Your task to perform on an android device: stop showing notifications on the lock screen Image 0: 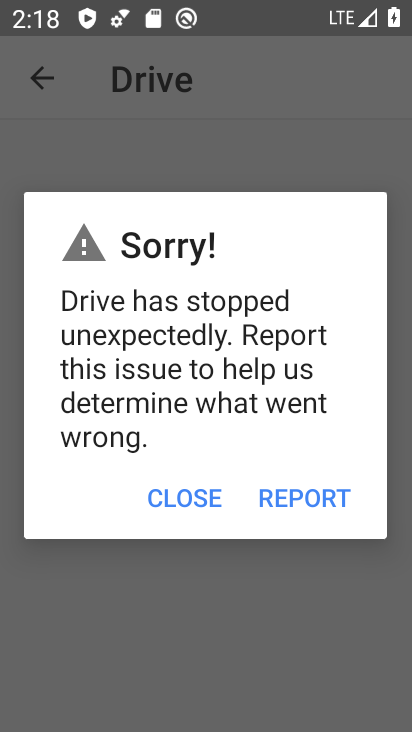
Step 0: press home button
Your task to perform on an android device: stop showing notifications on the lock screen Image 1: 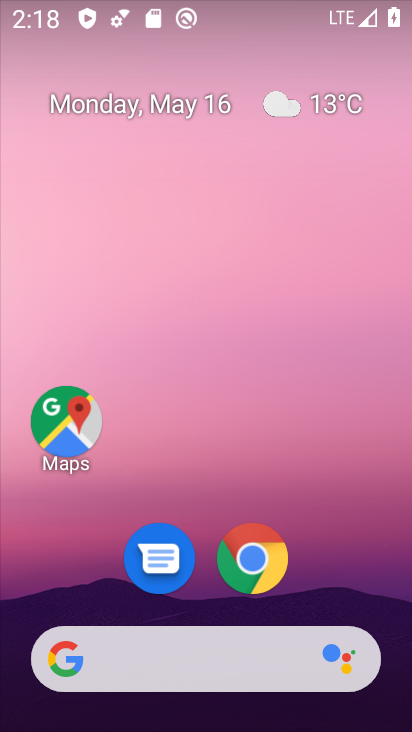
Step 1: drag from (206, 620) to (175, 92)
Your task to perform on an android device: stop showing notifications on the lock screen Image 2: 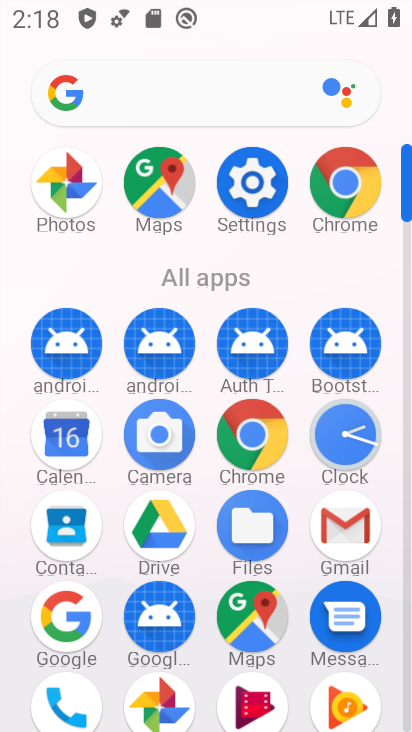
Step 2: click (254, 188)
Your task to perform on an android device: stop showing notifications on the lock screen Image 3: 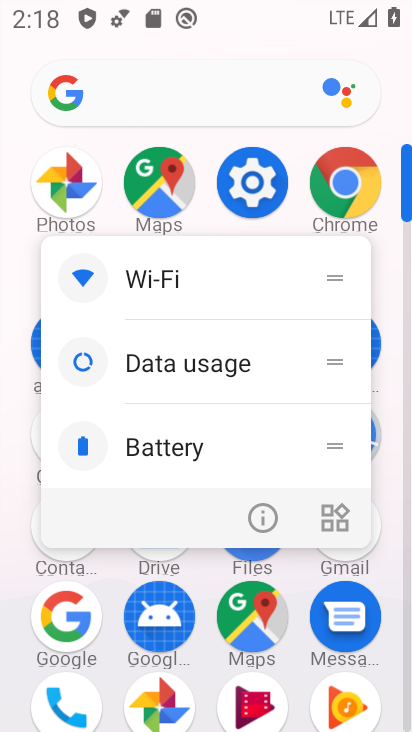
Step 3: click (250, 193)
Your task to perform on an android device: stop showing notifications on the lock screen Image 4: 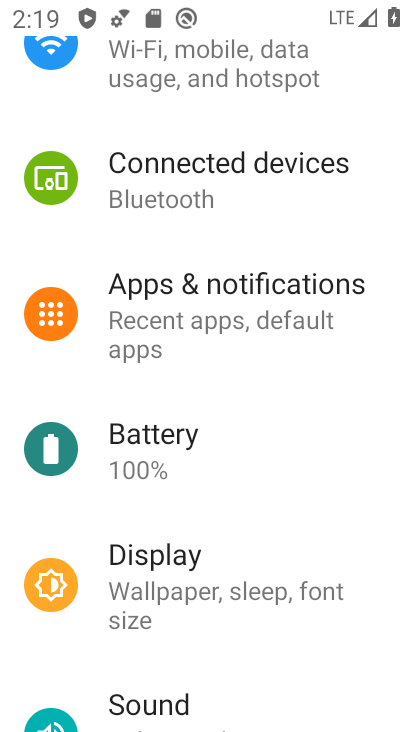
Step 4: drag from (206, 583) to (200, 499)
Your task to perform on an android device: stop showing notifications on the lock screen Image 5: 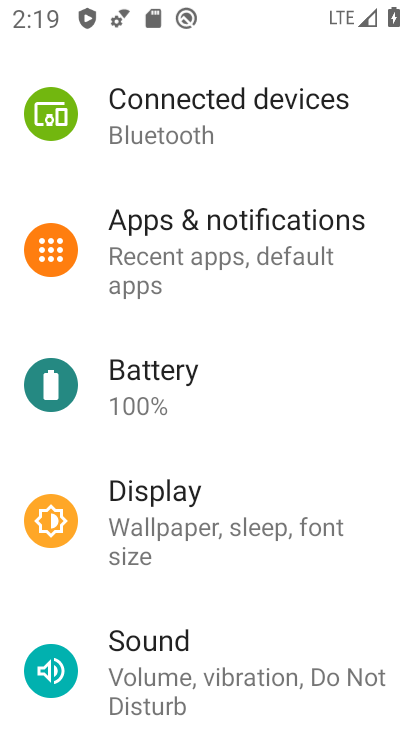
Step 5: click (167, 275)
Your task to perform on an android device: stop showing notifications on the lock screen Image 6: 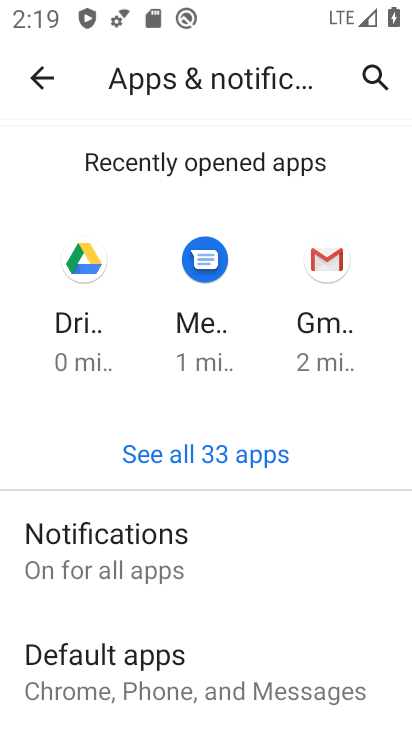
Step 6: click (122, 555)
Your task to perform on an android device: stop showing notifications on the lock screen Image 7: 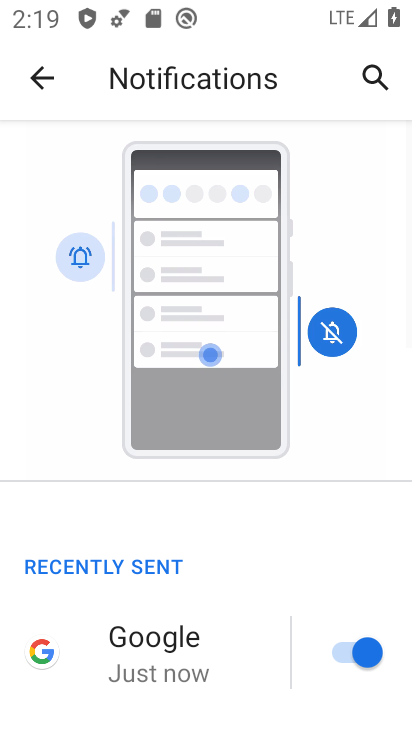
Step 7: drag from (161, 642) to (139, 167)
Your task to perform on an android device: stop showing notifications on the lock screen Image 8: 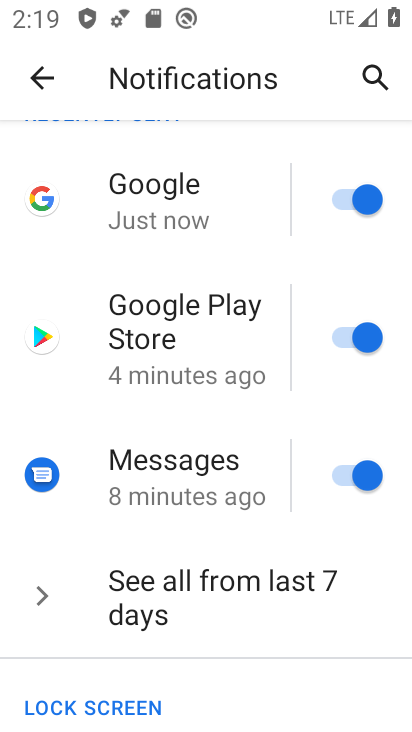
Step 8: drag from (188, 590) to (107, 137)
Your task to perform on an android device: stop showing notifications on the lock screen Image 9: 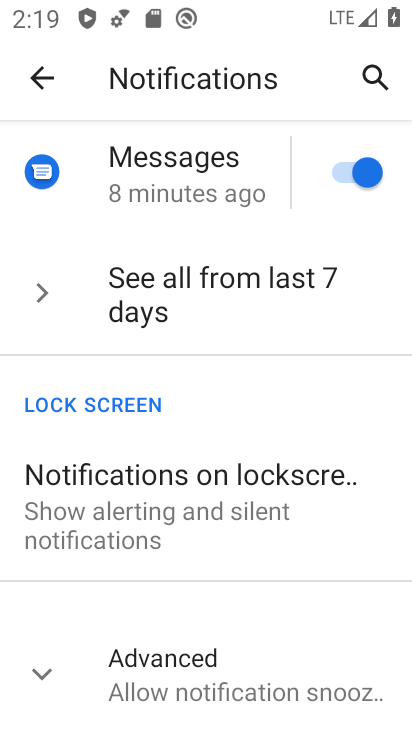
Step 9: click (168, 507)
Your task to perform on an android device: stop showing notifications on the lock screen Image 10: 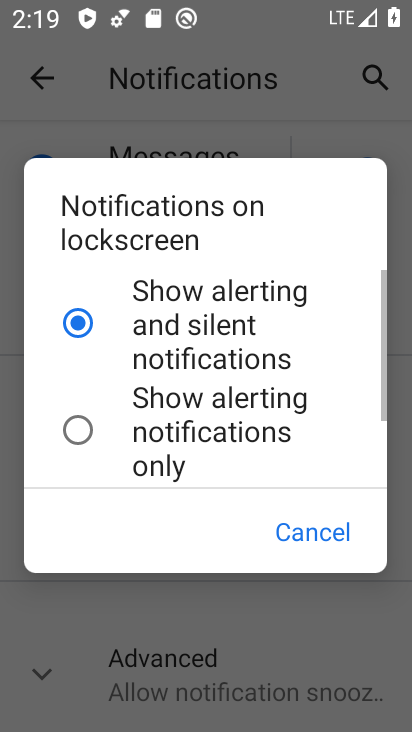
Step 10: click (149, 446)
Your task to perform on an android device: stop showing notifications on the lock screen Image 11: 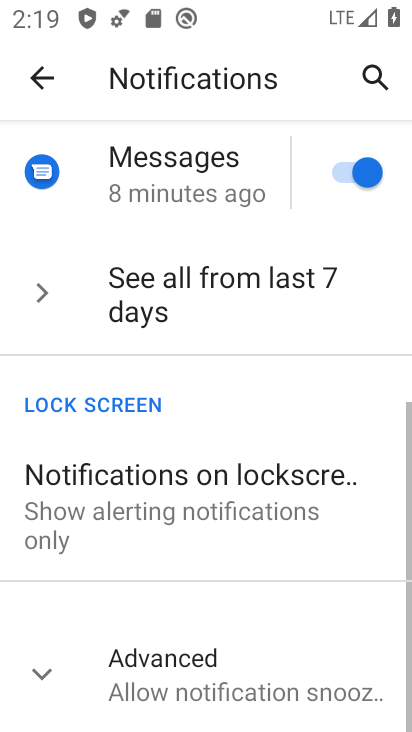
Step 11: drag from (149, 446) to (141, 277)
Your task to perform on an android device: stop showing notifications on the lock screen Image 12: 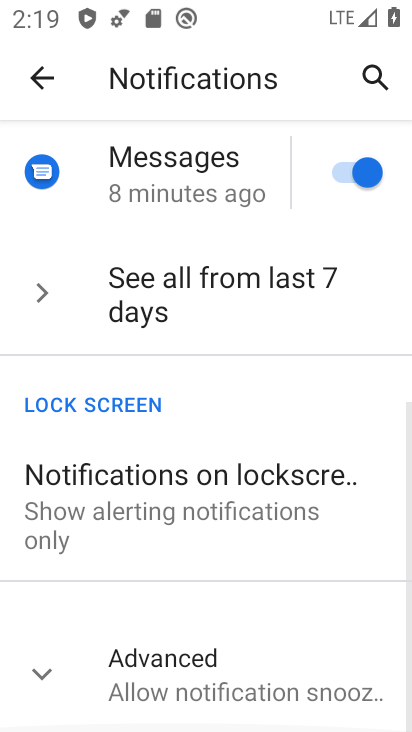
Step 12: click (271, 503)
Your task to perform on an android device: stop showing notifications on the lock screen Image 13: 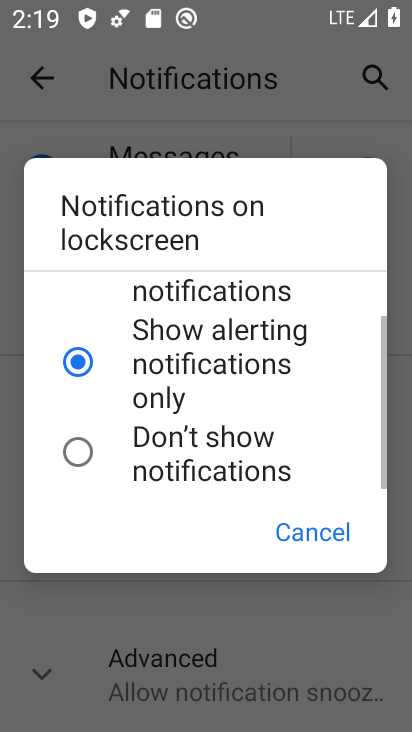
Step 13: drag from (262, 500) to (225, 314)
Your task to perform on an android device: stop showing notifications on the lock screen Image 14: 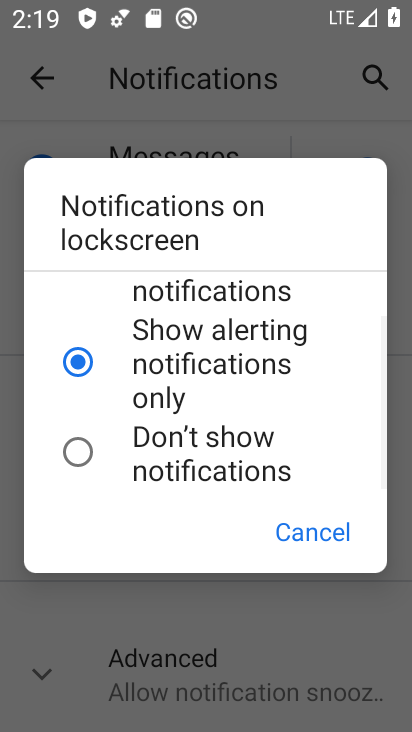
Step 14: click (193, 451)
Your task to perform on an android device: stop showing notifications on the lock screen Image 15: 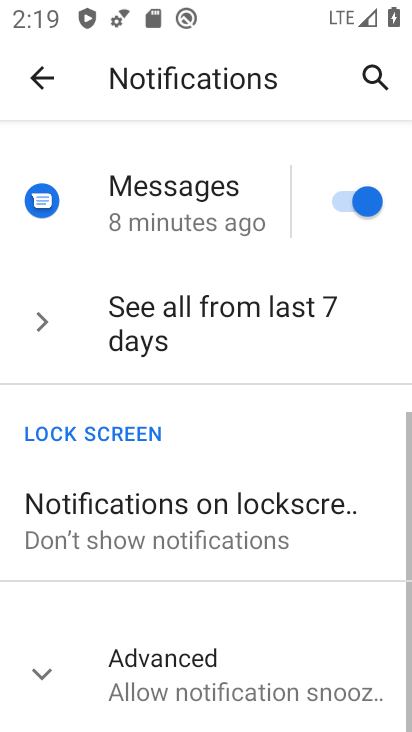
Step 15: task complete